Your task to perform on an android device: What's on my calendar tomorrow? Image 0: 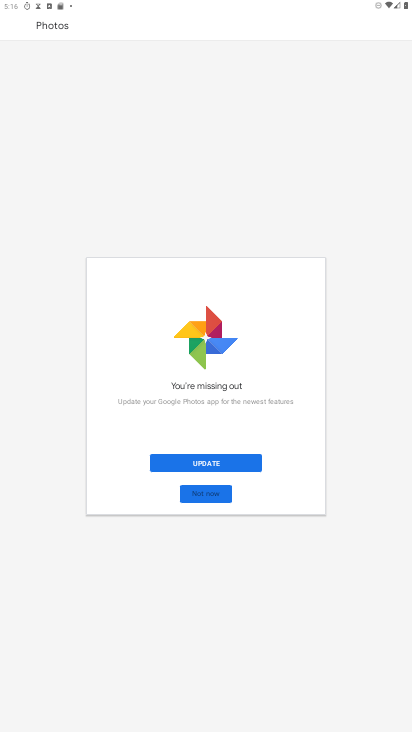
Step 0: press home button
Your task to perform on an android device: What's on my calendar tomorrow? Image 1: 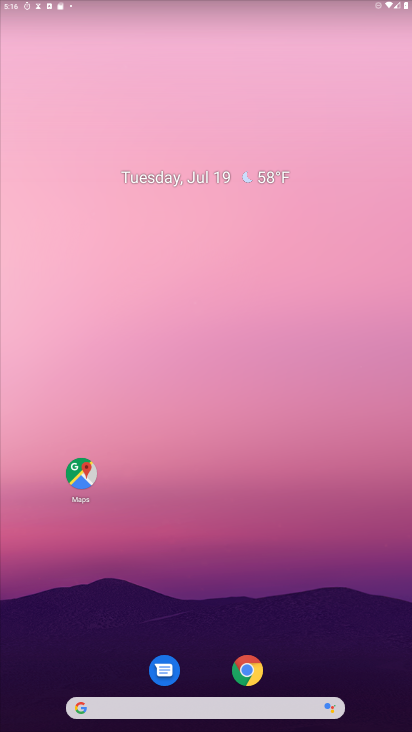
Step 1: drag from (267, 723) to (308, 3)
Your task to perform on an android device: What's on my calendar tomorrow? Image 2: 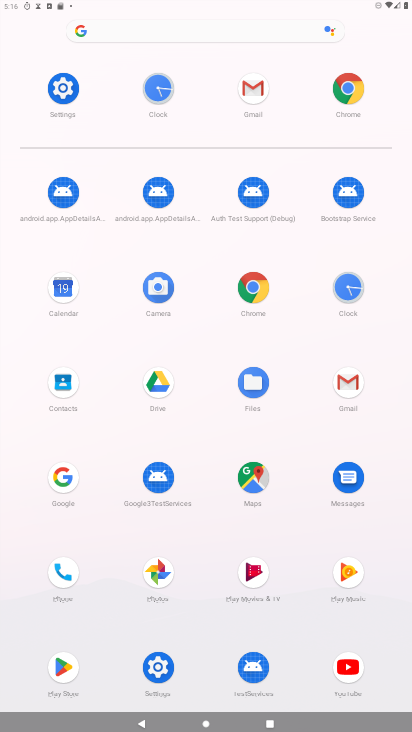
Step 2: click (63, 281)
Your task to perform on an android device: What's on my calendar tomorrow? Image 3: 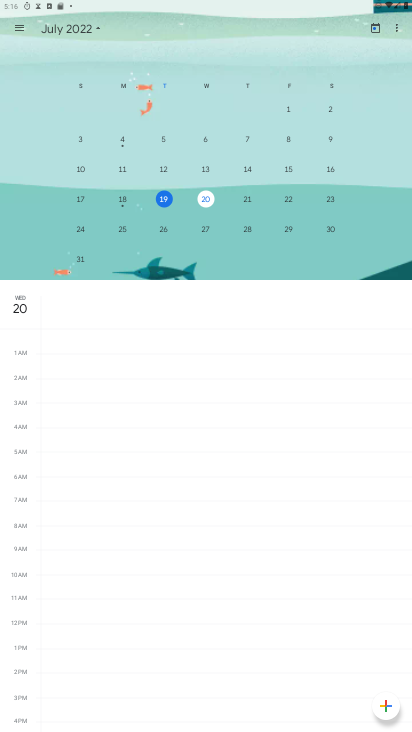
Step 3: click (213, 198)
Your task to perform on an android device: What's on my calendar tomorrow? Image 4: 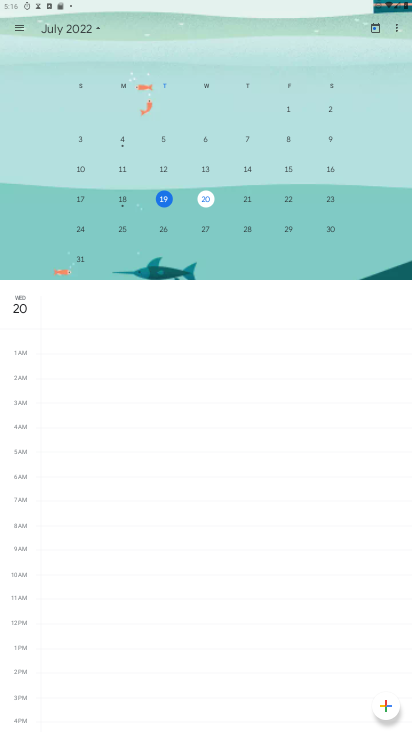
Step 4: click (205, 198)
Your task to perform on an android device: What's on my calendar tomorrow? Image 5: 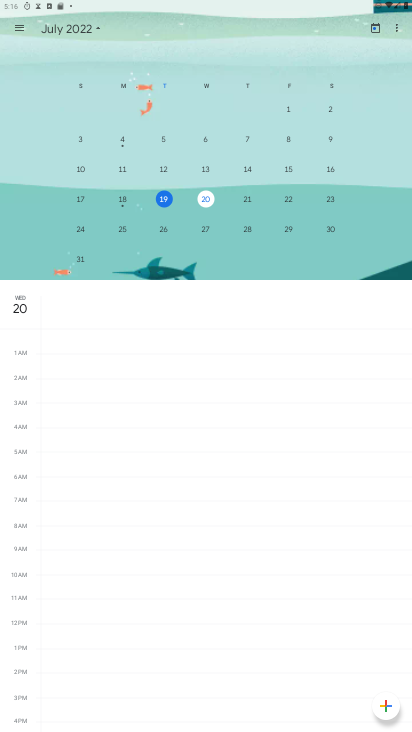
Step 5: task complete